Your task to perform on an android device: open chrome and create a bookmark for the current page Image 0: 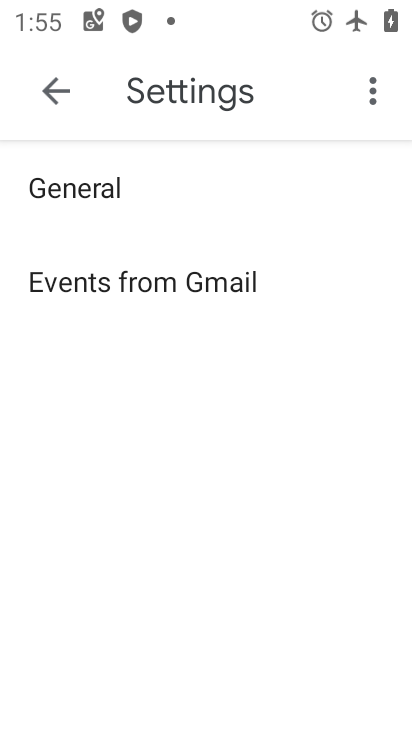
Step 0: press home button
Your task to perform on an android device: open chrome and create a bookmark for the current page Image 1: 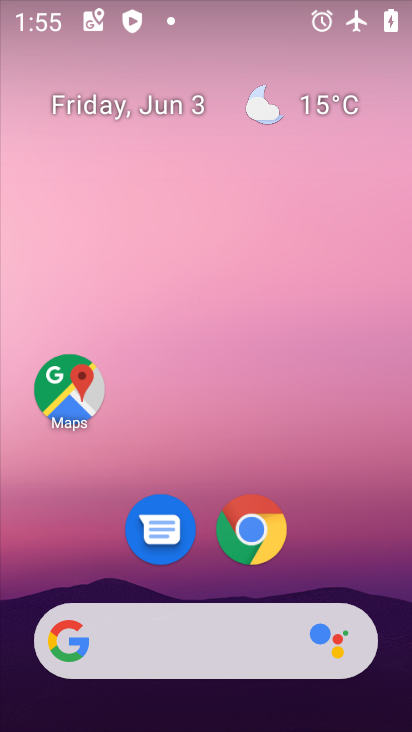
Step 1: drag from (369, 523) to (362, 151)
Your task to perform on an android device: open chrome and create a bookmark for the current page Image 2: 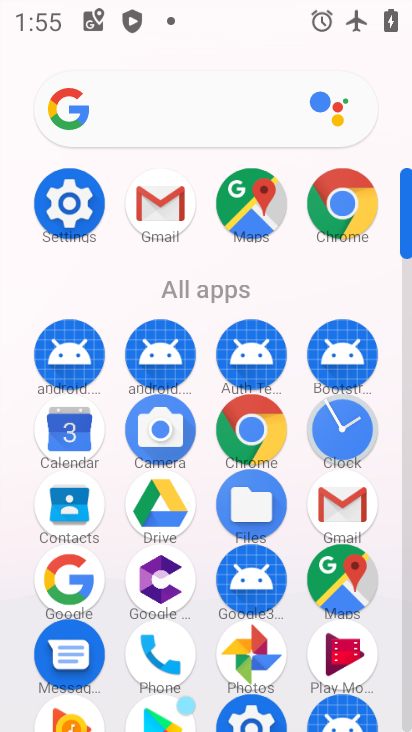
Step 2: click (367, 216)
Your task to perform on an android device: open chrome and create a bookmark for the current page Image 3: 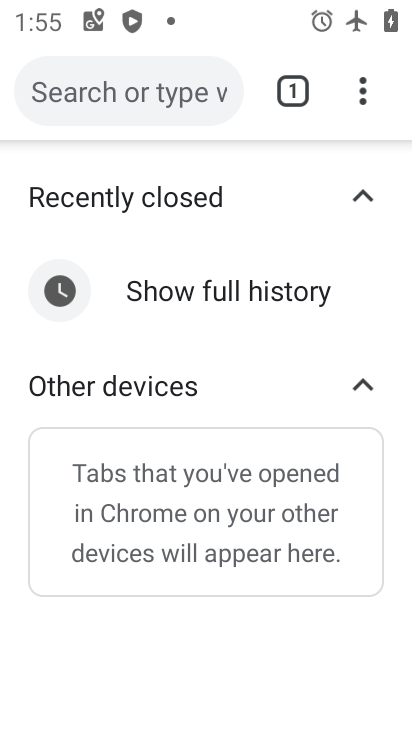
Step 3: click (358, 103)
Your task to perform on an android device: open chrome and create a bookmark for the current page Image 4: 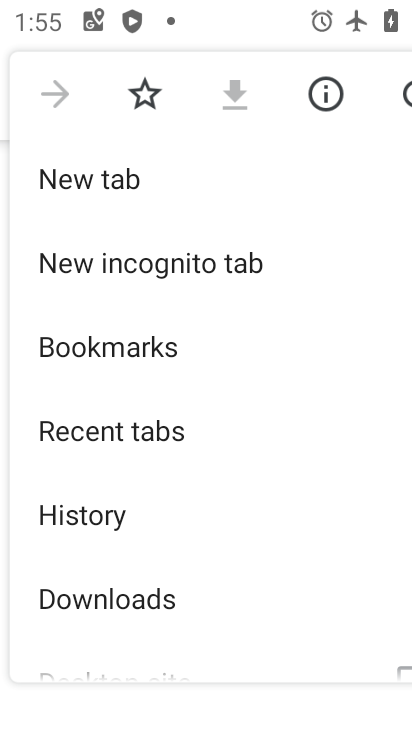
Step 4: click (135, 95)
Your task to perform on an android device: open chrome and create a bookmark for the current page Image 5: 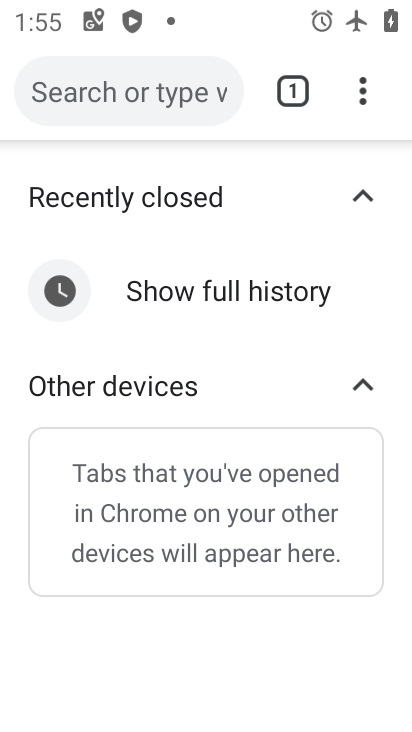
Step 5: task complete